Your task to perform on an android device: turn pop-ups on in chrome Image 0: 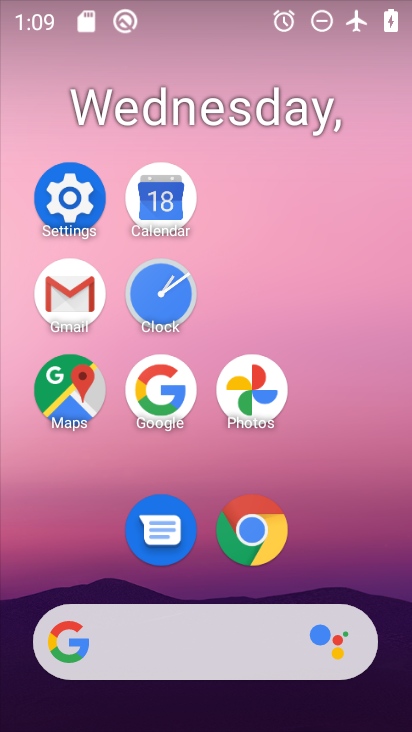
Step 0: click (250, 518)
Your task to perform on an android device: turn pop-ups on in chrome Image 1: 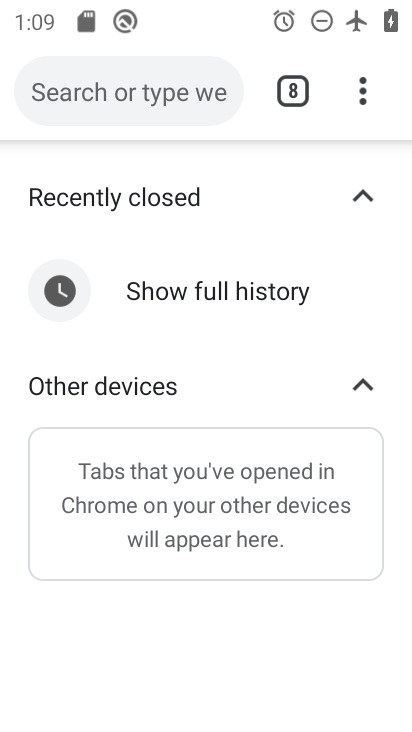
Step 1: click (384, 95)
Your task to perform on an android device: turn pop-ups on in chrome Image 2: 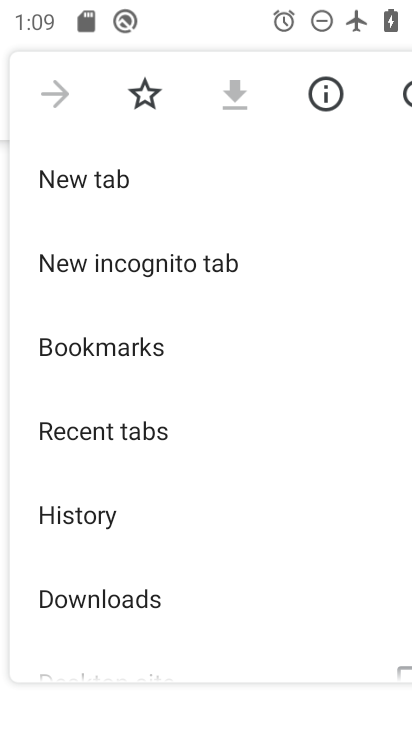
Step 2: drag from (254, 505) to (299, 168)
Your task to perform on an android device: turn pop-ups on in chrome Image 3: 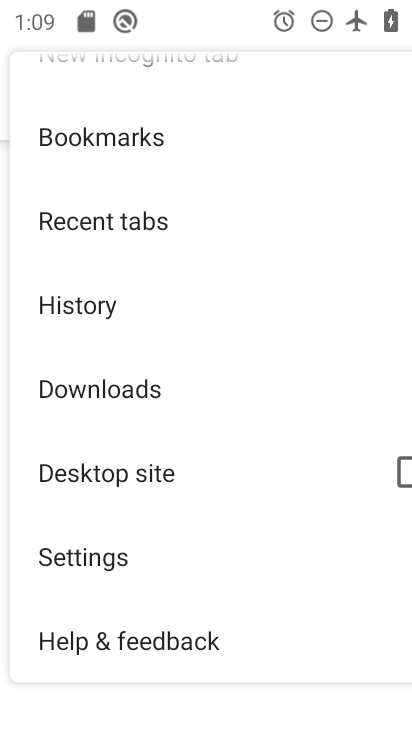
Step 3: click (166, 550)
Your task to perform on an android device: turn pop-ups on in chrome Image 4: 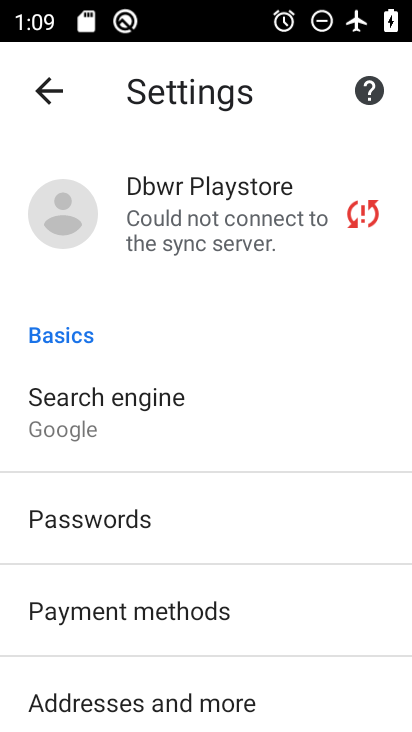
Step 4: drag from (192, 625) to (238, 193)
Your task to perform on an android device: turn pop-ups on in chrome Image 5: 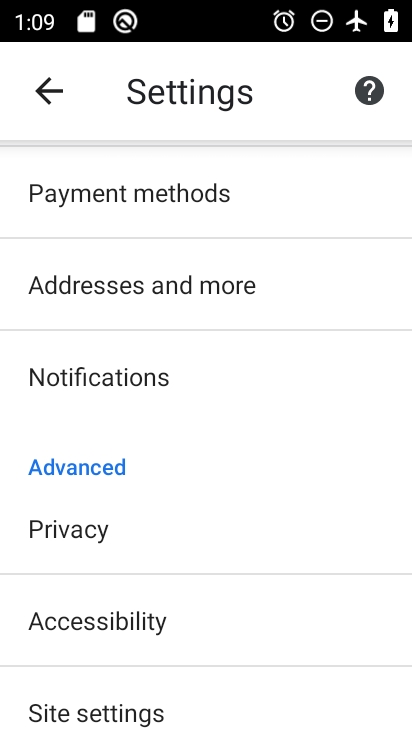
Step 5: drag from (183, 602) to (237, 165)
Your task to perform on an android device: turn pop-ups on in chrome Image 6: 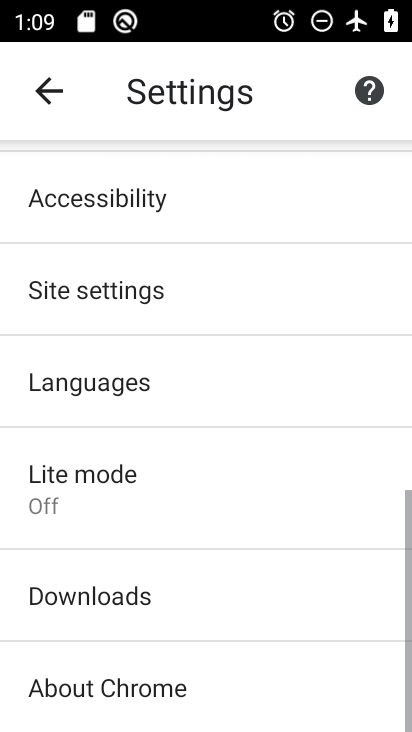
Step 6: click (238, 278)
Your task to perform on an android device: turn pop-ups on in chrome Image 7: 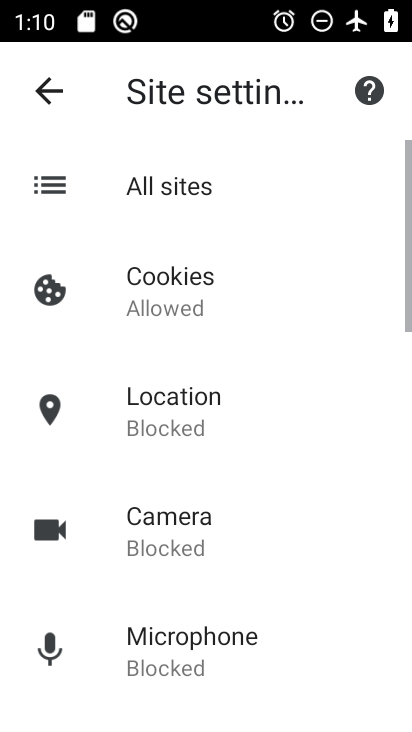
Step 7: drag from (303, 543) to (352, 157)
Your task to perform on an android device: turn pop-ups on in chrome Image 8: 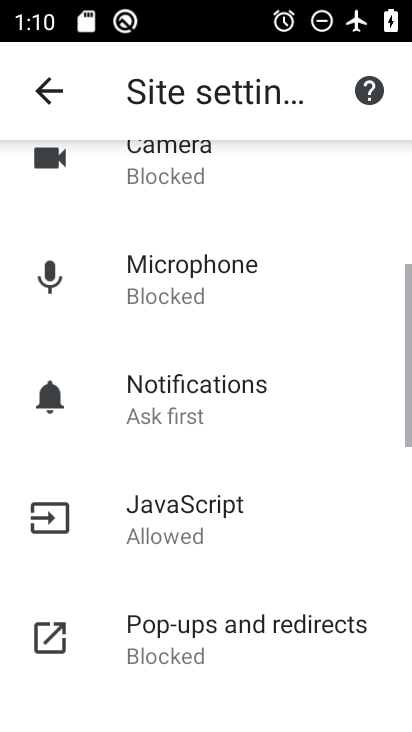
Step 8: drag from (263, 681) to (266, 323)
Your task to perform on an android device: turn pop-ups on in chrome Image 9: 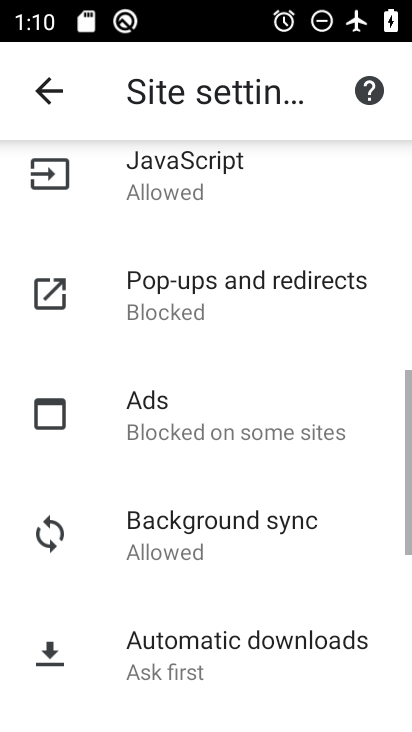
Step 9: click (250, 285)
Your task to perform on an android device: turn pop-ups on in chrome Image 10: 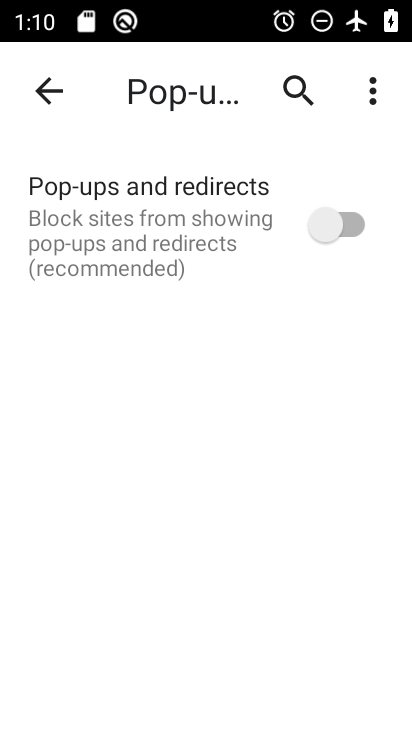
Step 10: click (354, 232)
Your task to perform on an android device: turn pop-ups on in chrome Image 11: 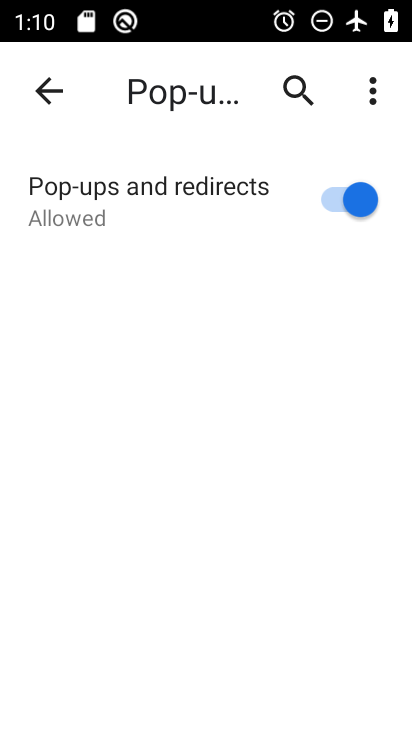
Step 11: task complete